Your task to perform on an android device: Open Youtube and go to "Your channel" Image 0: 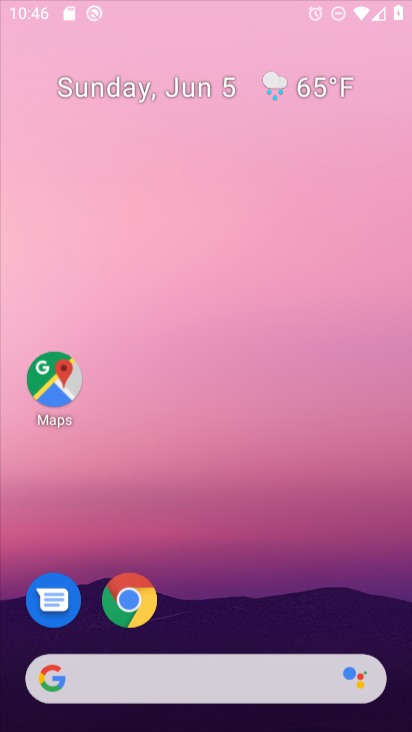
Step 0: click (267, 56)
Your task to perform on an android device: Open Youtube and go to "Your channel" Image 1: 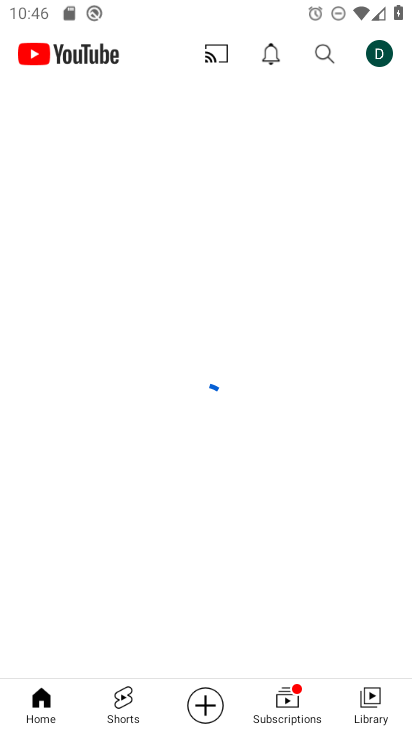
Step 1: press home button
Your task to perform on an android device: Open Youtube and go to "Your channel" Image 2: 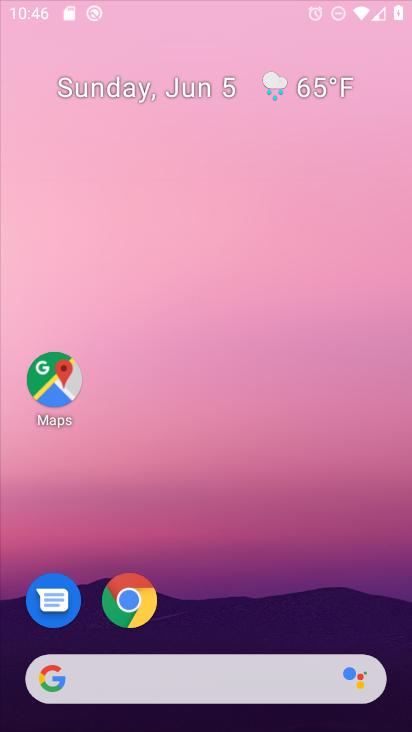
Step 2: drag from (393, 648) to (314, 90)
Your task to perform on an android device: Open Youtube and go to "Your channel" Image 3: 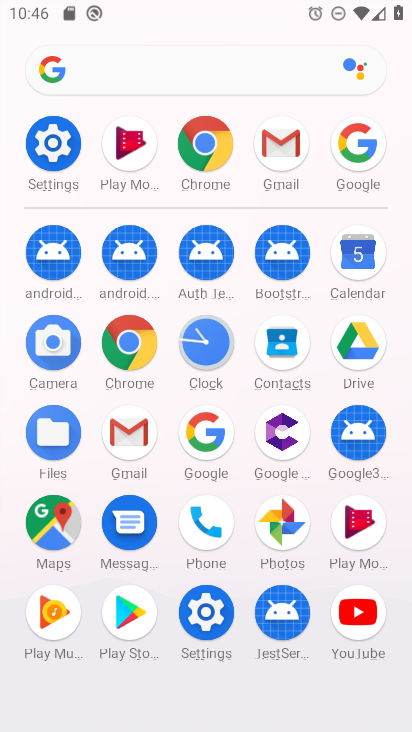
Step 3: click (355, 620)
Your task to perform on an android device: Open Youtube and go to "Your channel" Image 4: 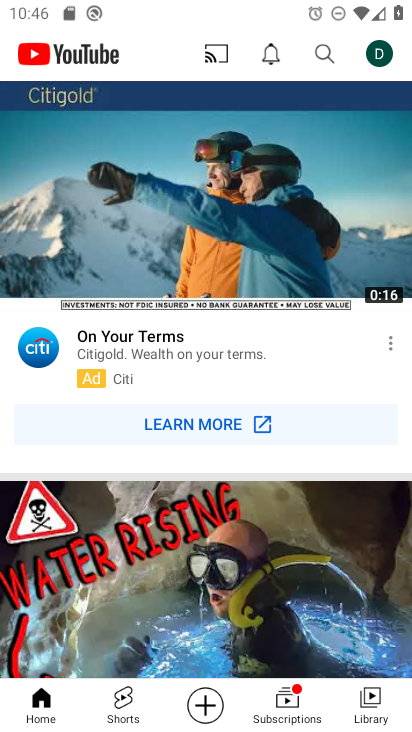
Step 4: click (387, 49)
Your task to perform on an android device: Open Youtube and go to "Your channel" Image 5: 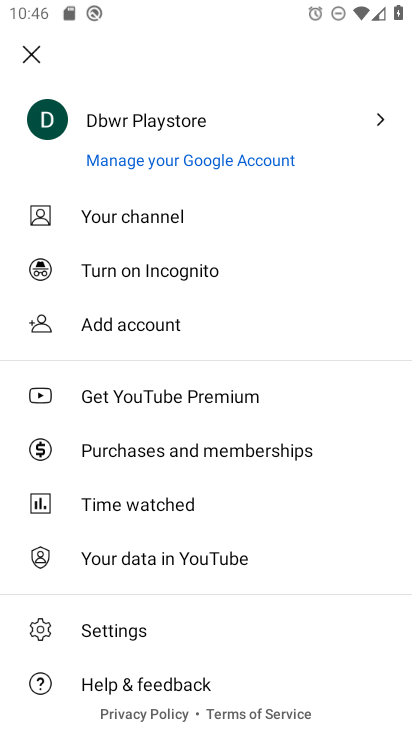
Step 5: click (152, 232)
Your task to perform on an android device: Open Youtube and go to "Your channel" Image 6: 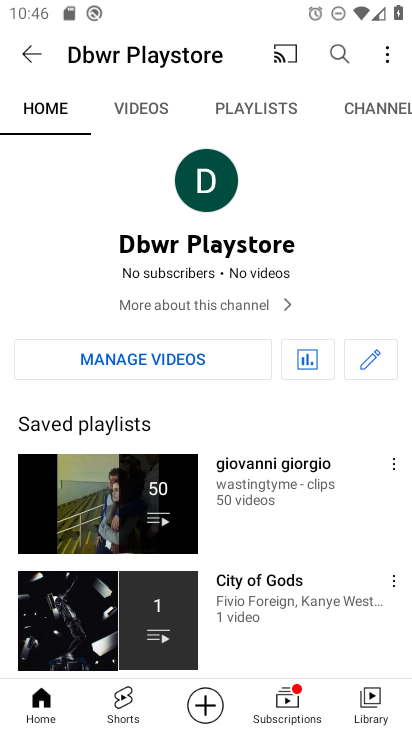
Step 6: task complete